Your task to perform on an android device: Do I have any events today? Image 0: 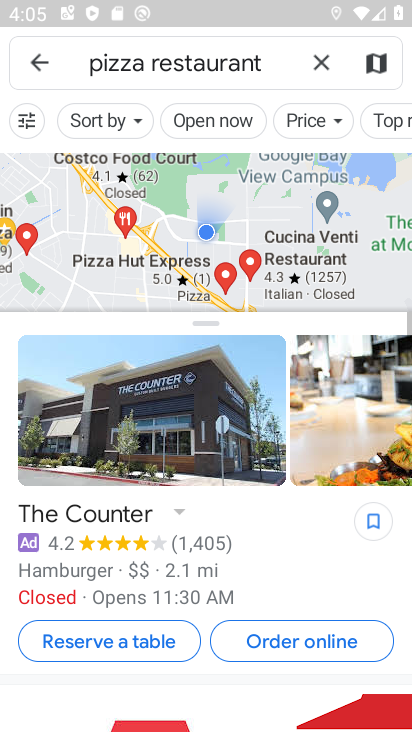
Step 0: press home button
Your task to perform on an android device: Do I have any events today? Image 1: 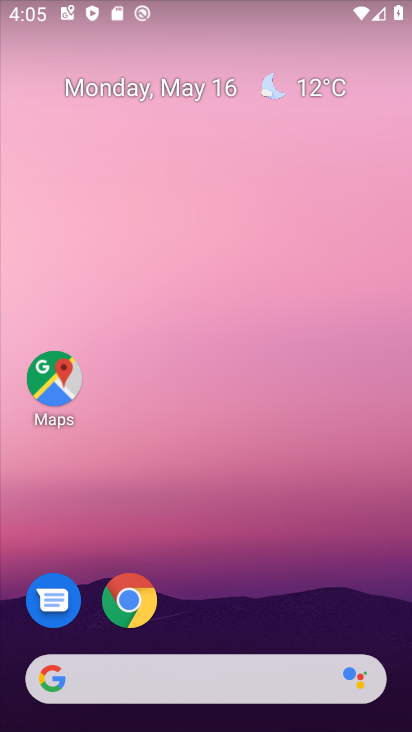
Step 1: drag from (148, 657) to (195, 305)
Your task to perform on an android device: Do I have any events today? Image 2: 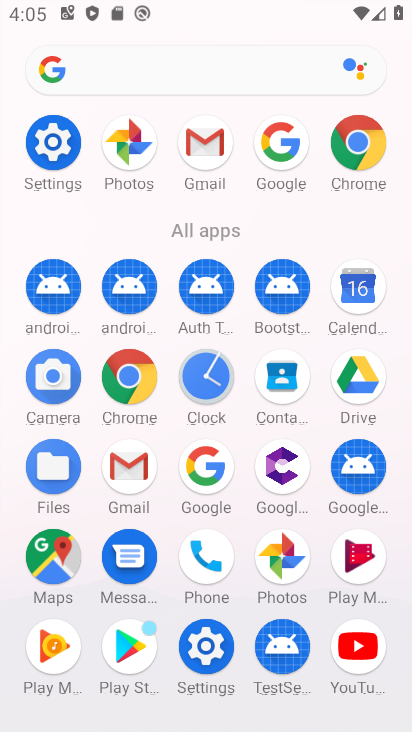
Step 2: click (347, 297)
Your task to perform on an android device: Do I have any events today? Image 3: 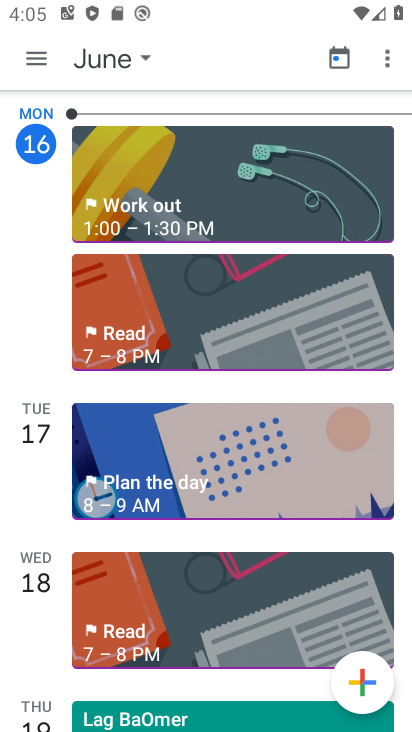
Step 3: click (246, 196)
Your task to perform on an android device: Do I have any events today? Image 4: 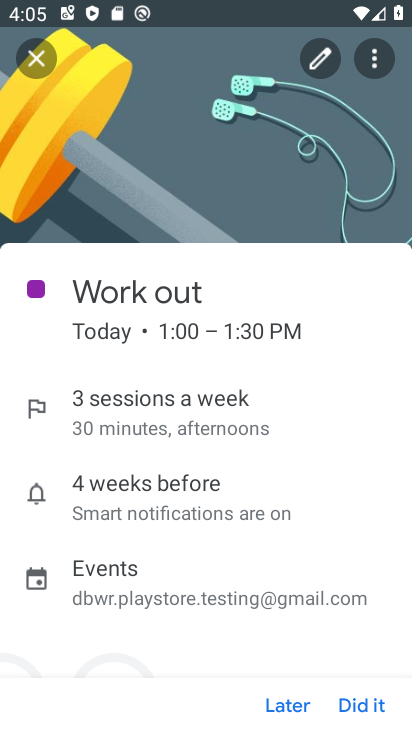
Step 4: click (39, 49)
Your task to perform on an android device: Do I have any events today? Image 5: 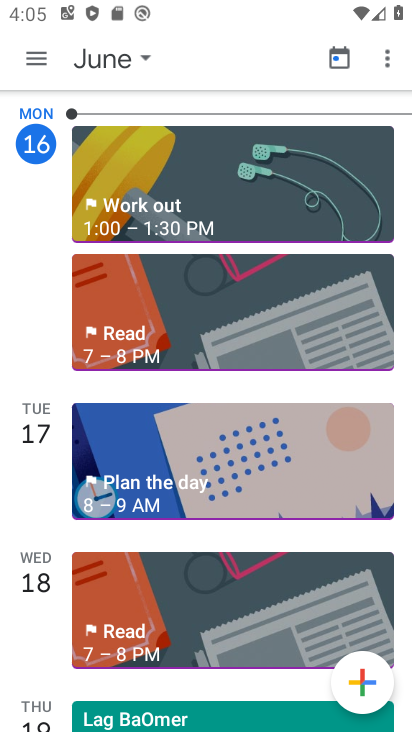
Step 5: click (186, 304)
Your task to perform on an android device: Do I have any events today? Image 6: 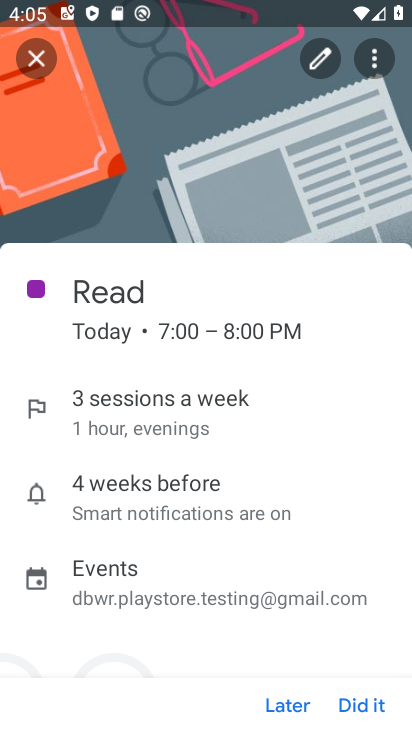
Step 6: task complete